Your task to perform on an android device: Open eBay Image 0: 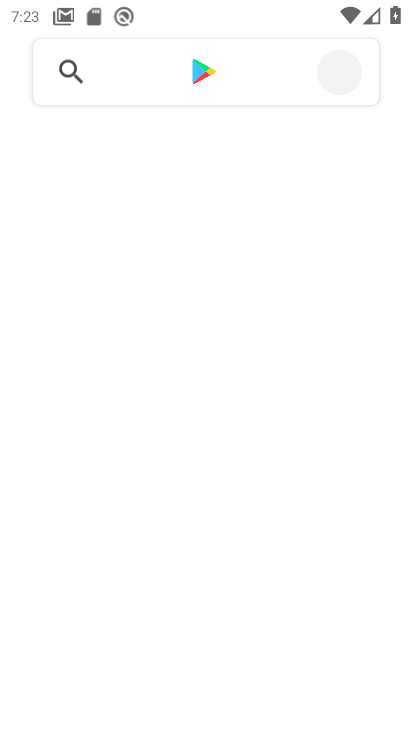
Step 0: press home button
Your task to perform on an android device: Open eBay Image 1: 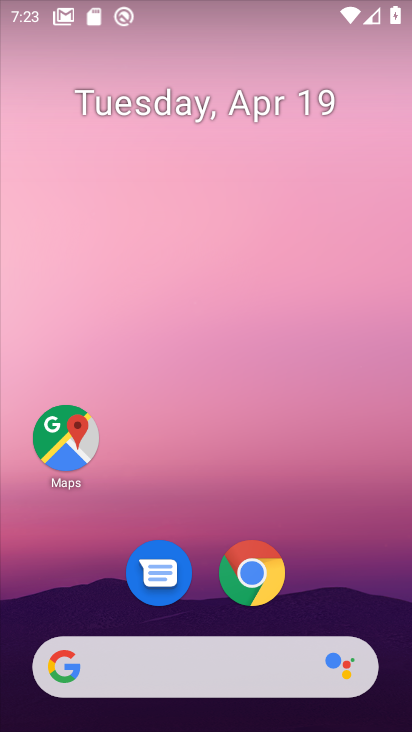
Step 1: drag from (259, 680) to (214, 366)
Your task to perform on an android device: Open eBay Image 2: 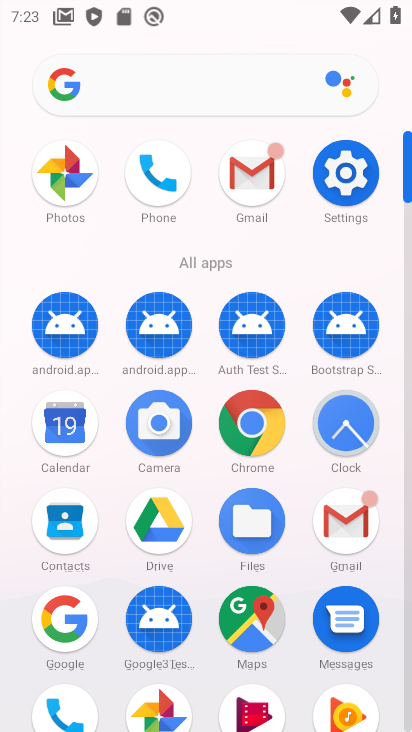
Step 2: drag from (209, 626) to (247, 538)
Your task to perform on an android device: Open eBay Image 3: 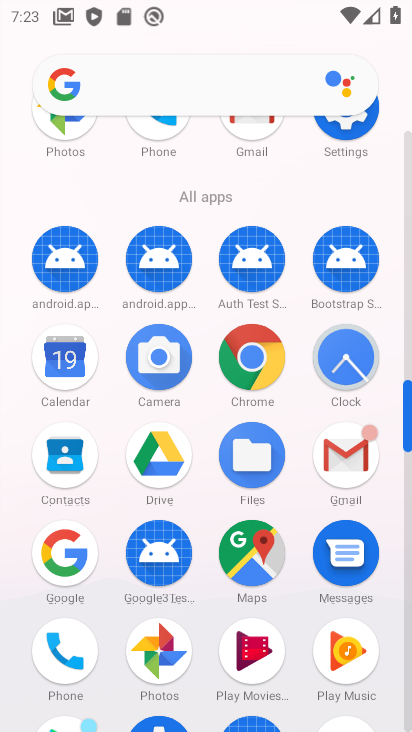
Step 3: click (241, 355)
Your task to perform on an android device: Open eBay Image 4: 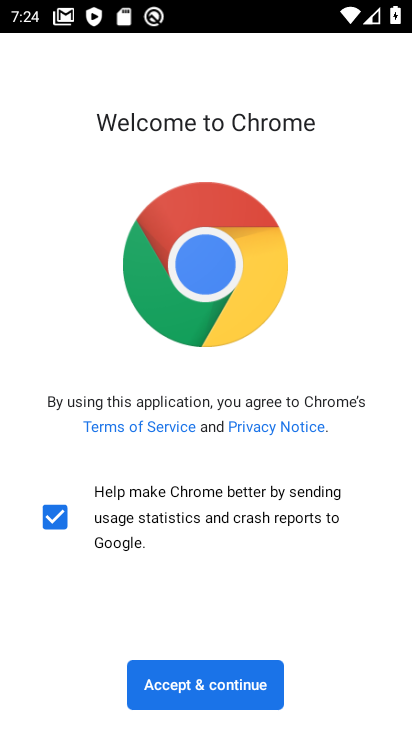
Step 4: click (219, 679)
Your task to perform on an android device: Open eBay Image 5: 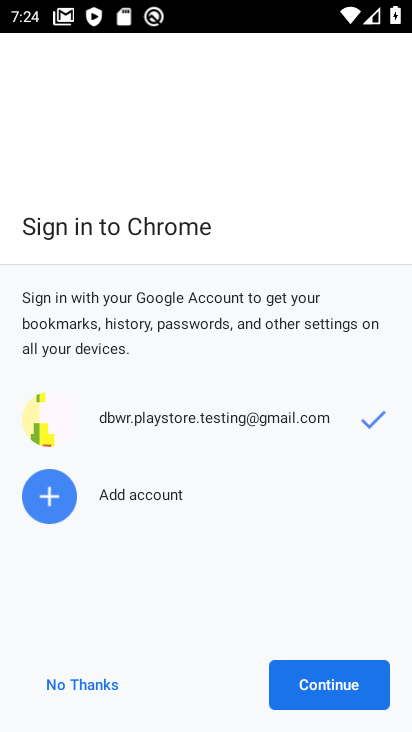
Step 5: click (315, 675)
Your task to perform on an android device: Open eBay Image 6: 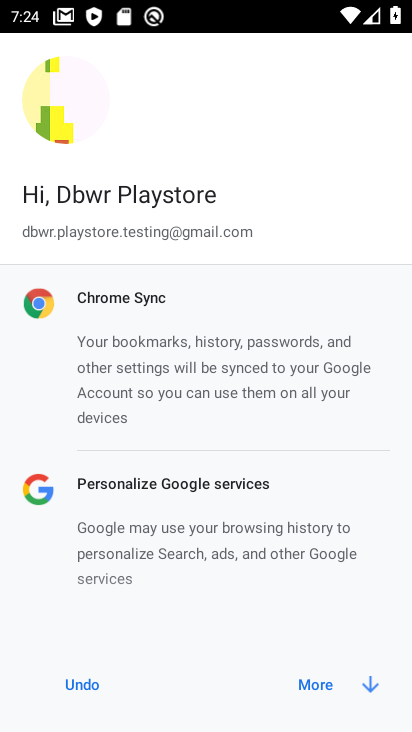
Step 6: click (360, 674)
Your task to perform on an android device: Open eBay Image 7: 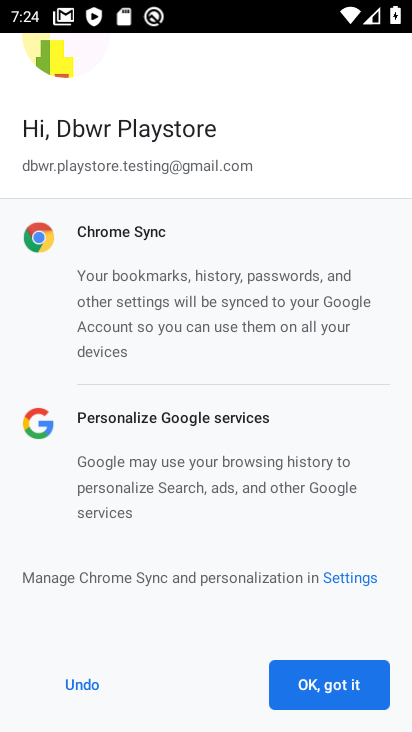
Step 7: click (339, 678)
Your task to perform on an android device: Open eBay Image 8: 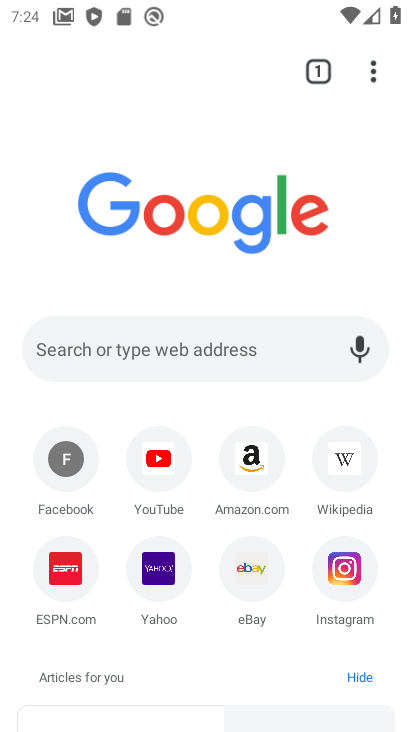
Step 8: click (249, 559)
Your task to perform on an android device: Open eBay Image 9: 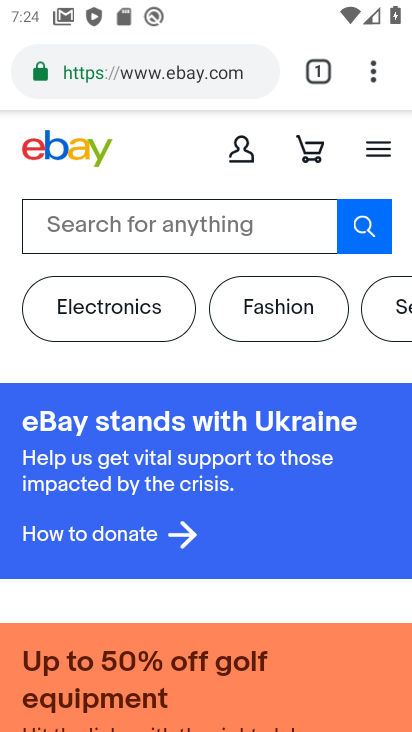
Step 9: task complete